Your task to perform on an android device: Search for Mexican restaurants on Maps Image 0: 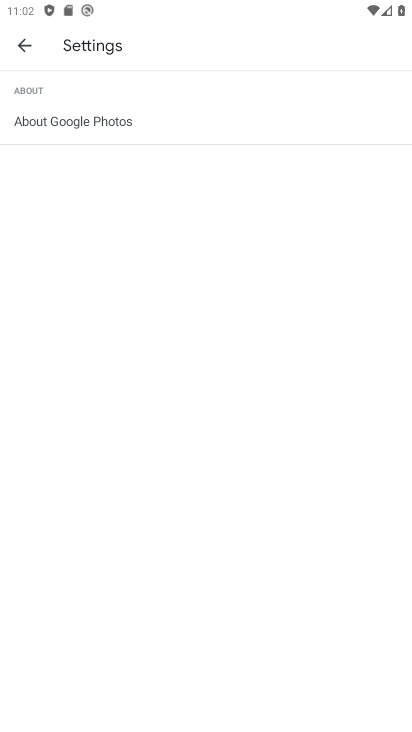
Step 0: press home button
Your task to perform on an android device: Search for Mexican restaurants on Maps Image 1: 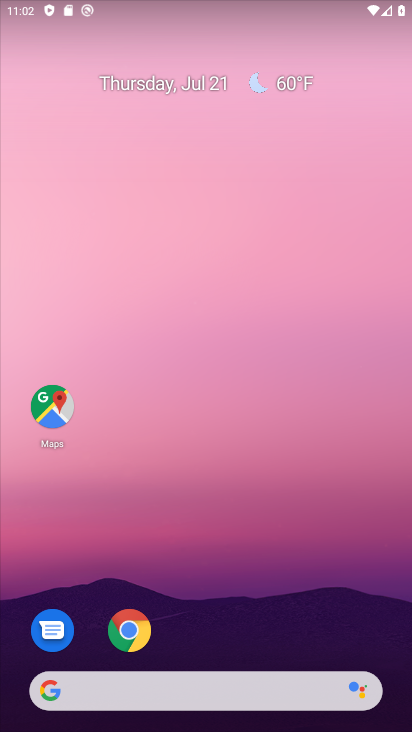
Step 1: drag from (212, 692) to (406, 129)
Your task to perform on an android device: Search for Mexican restaurants on Maps Image 2: 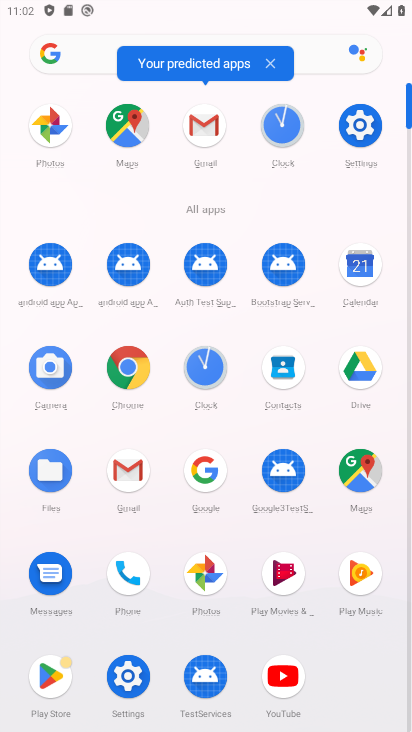
Step 2: click (363, 477)
Your task to perform on an android device: Search for Mexican restaurants on Maps Image 3: 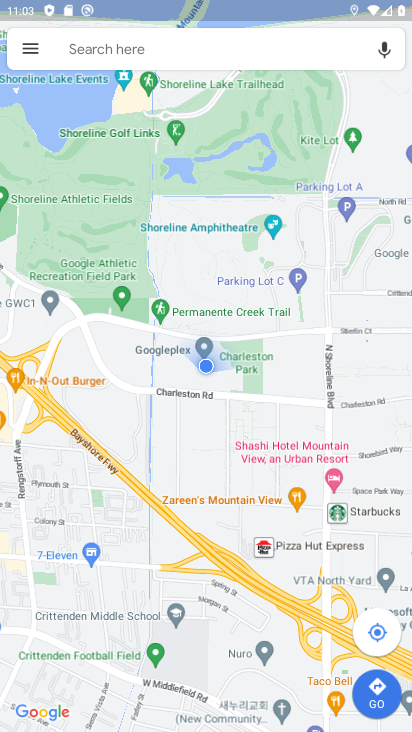
Step 3: click (29, 46)
Your task to perform on an android device: Search for Mexican restaurants on Maps Image 4: 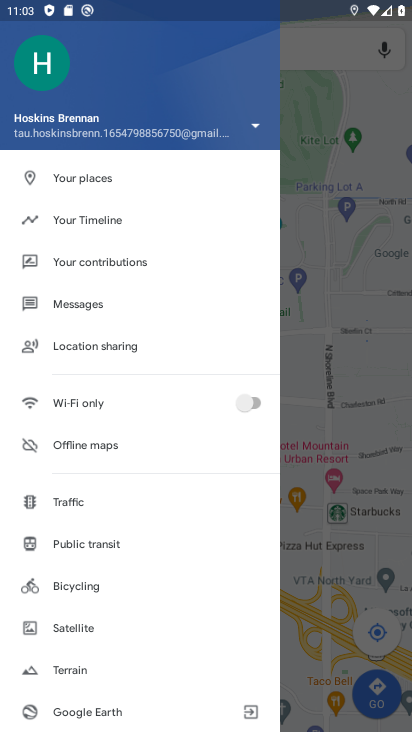
Step 4: click (345, 48)
Your task to perform on an android device: Search for Mexican restaurants on Maps Image 5: 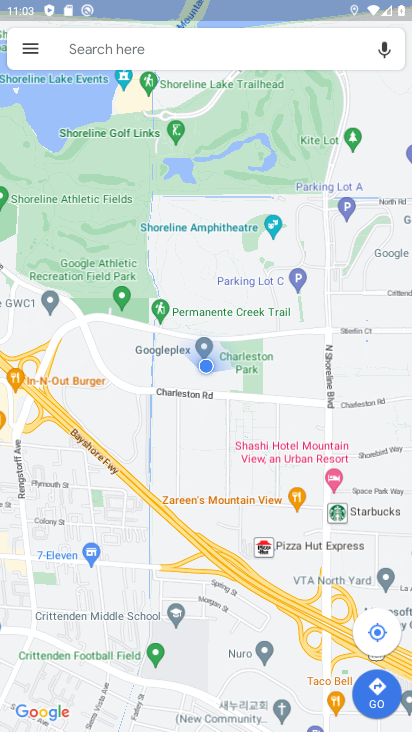
Step 5: click (279, 57)
Your task to perform on an android device: Search for Mexican restaurants on Maps Image 6: 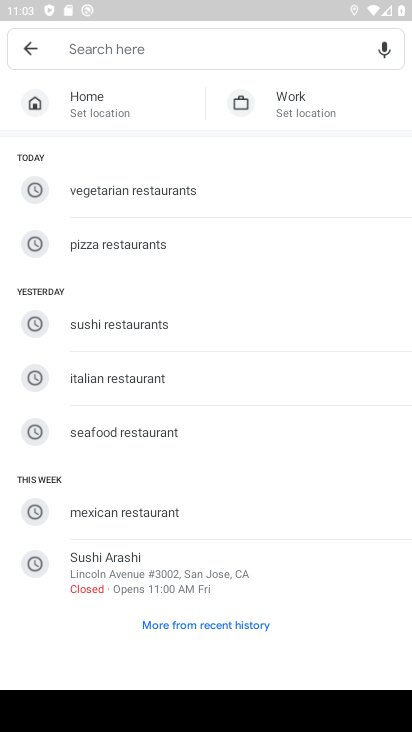
Step 6: click (128, 509)
Your task to perform on an android device: Search for Mexican restaurants on Maps Image 7: 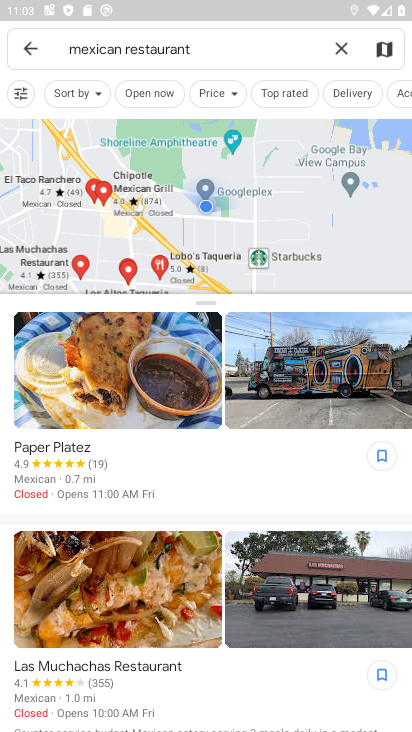
Step 7: task complete